Your task to perform on an android device: uninstall "Adobe Acrobat Reader: Edit PDF" Image 0: 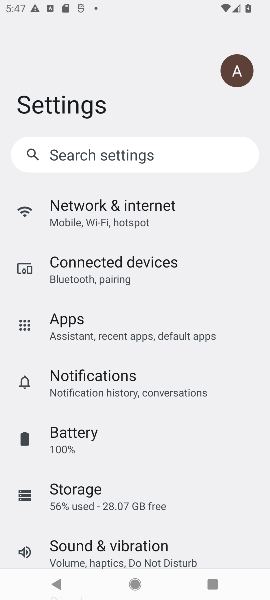
Step 0: press home button
Your task to perform on an android device: uninstall "Adobe Acrobat Reader: Edit PDF" Image 1: 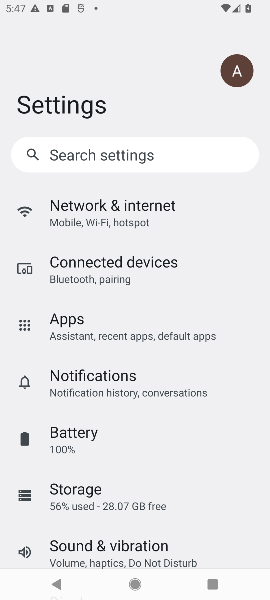
Step 1: press home button
Your task to perform on an android device: uninstall "Adobe Acrobat Reader: Edit PDF" Image 2: 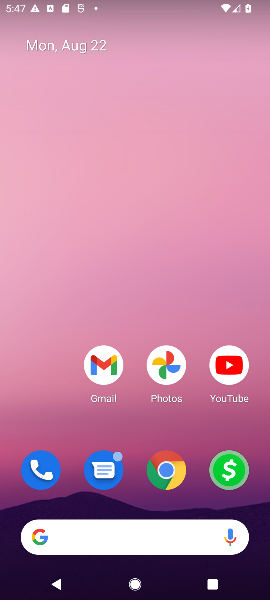
Step 2: drag from (139, 493) to (143, 134)
Your task to perform on an android device: uninstall "Adobe Acrobat Reader: Edit PDF" Image 3: 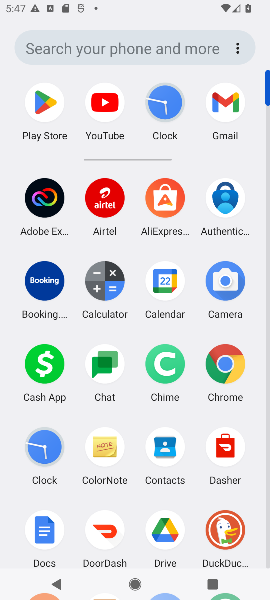
Step 3: click (38, 103)
Your task to perform on an android device: uninstall "Adobe Acrobat Reader: Edit PDF" Image 4: 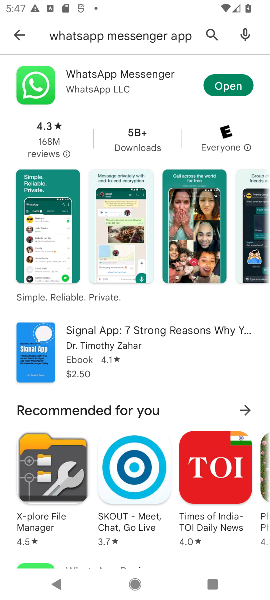
Step 4: click (23, 29)
Your task to perform on an android device: uninstall "Adobe Acrobat Reader: Edit PDF" Image 5: 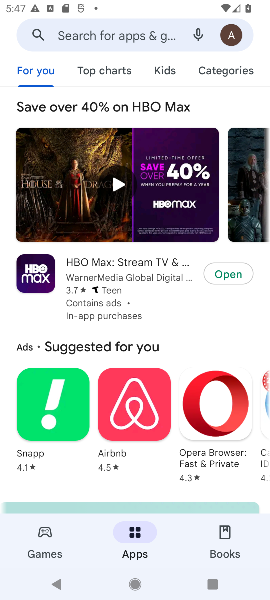
Step 5: click (98, 31)
Your task to perform on an android device: uninstall "Adobe Acrobat Reader: Edit PDF" Image 6: 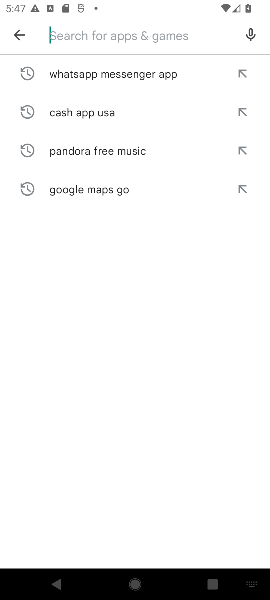
Step 6: click (54, 26)
Your task to perform on an android device: uninstall "Adobe Acrobat Reader: Edit PDF" Image 7: 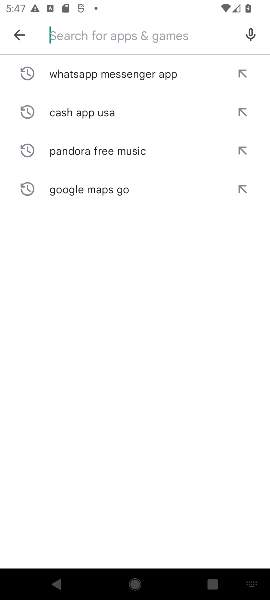
Step 7: type "Adobe Acrobat Reader: Edit PDF "
Your task to perform on an android device: uninstall "Adobe Acrobat Reader: Edit PDF" Image 8: 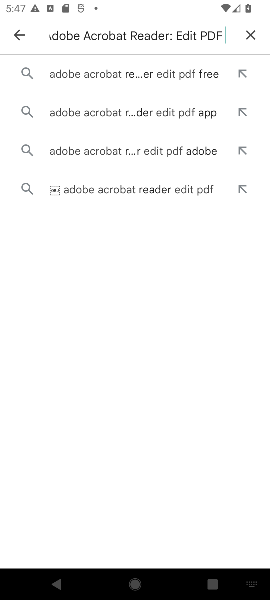
Step 8: click (91, 75)
Your task to perform on an android device: uninstall "Adobe Acrobat Reader: Edit PDF" Image 9: 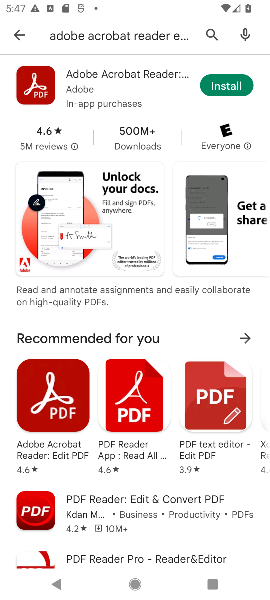
Step 9: click (119, 81)
Your task to perform on an android device: uninstall "Adobe Acrobat Reader: Edit PDF" Image 10: 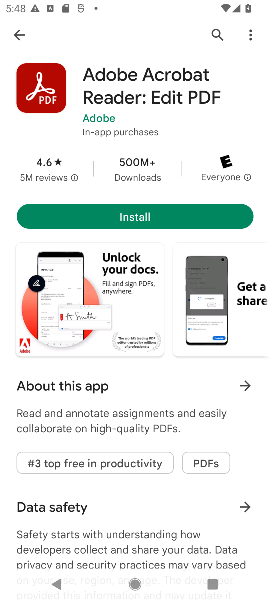
Step 10: task complete